Your task to perform on an android device: toggle sleep mode Image 0: 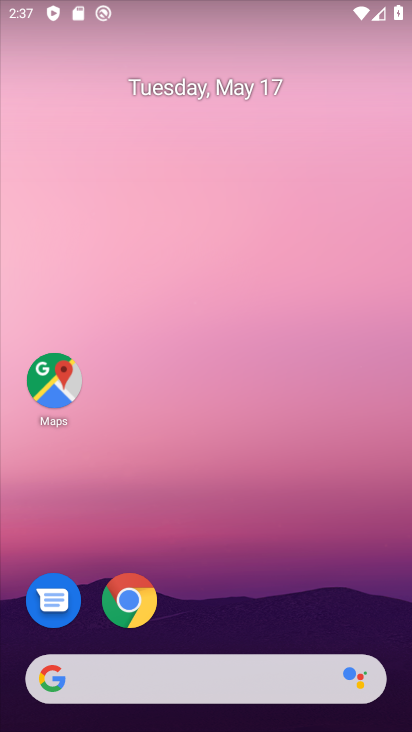
Step 0: drag from (219, 635) to (307, 205)
Your task to perform on an android device: toggle sleep mode Image 1: 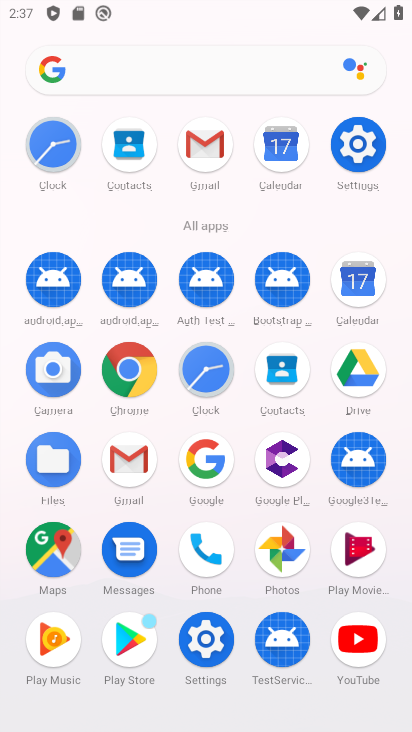
Step 1: drag from (196, 588) to (246, 380)
Your task to perform on an android device: toggle sleep mode Image 2: 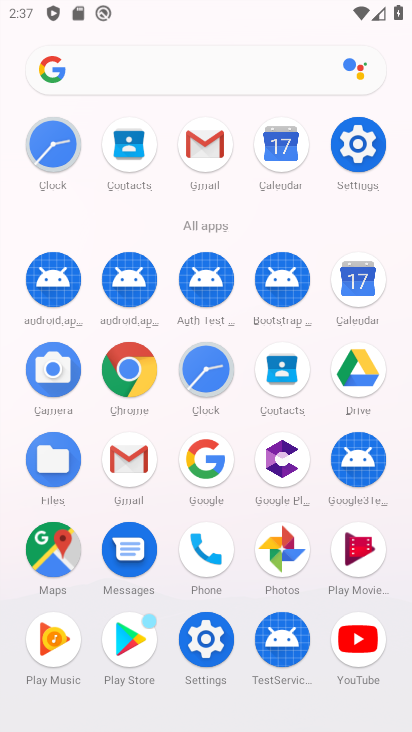
Step 2: click (221, 654)
Your task to perform on an android device: toggle sleep mode Image 3: 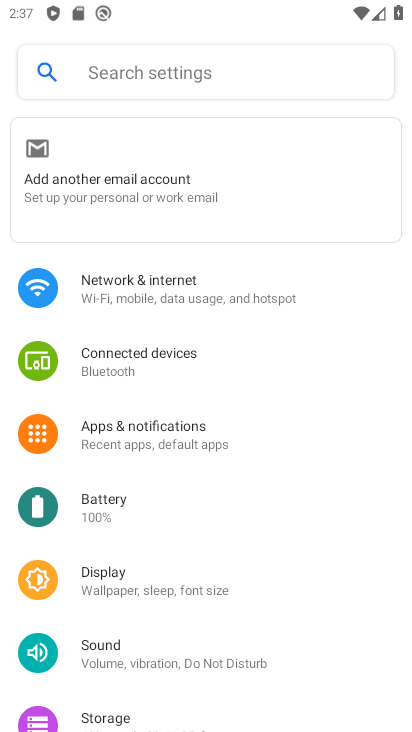
Step 3: drag from (213, 497) to (289, 291)
Your task to perform on an android device: toggle sleep mode Image 4: 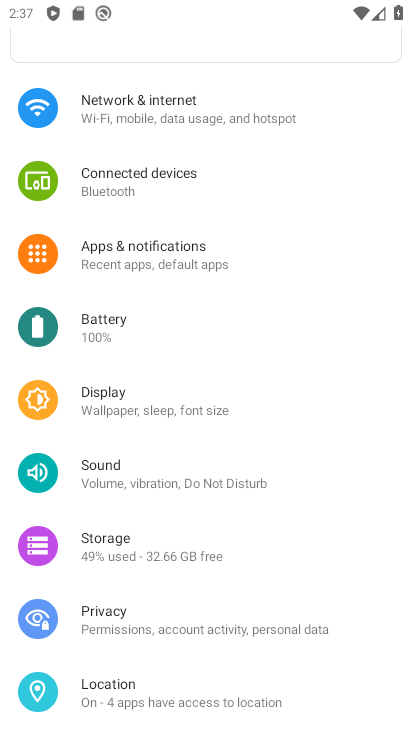
Step 4: click (167, 396)
Your task to perform on an android device: toggle sleep mode Image 5: 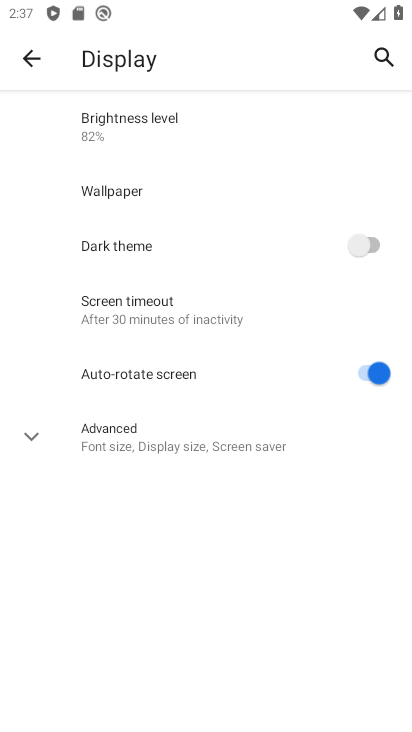
Step 5: click (202, 438)
Your task to perform on an android device: toggle sleep mode Image 6: 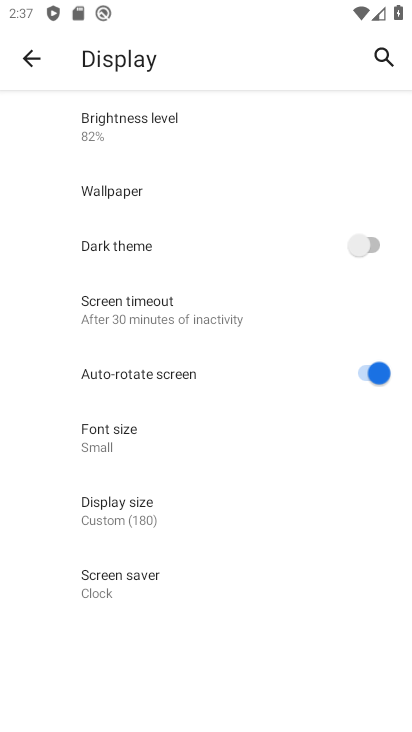
Step 6: task complete